Your task to perform on an android device: search for starred emails in the gmail app Image 0: 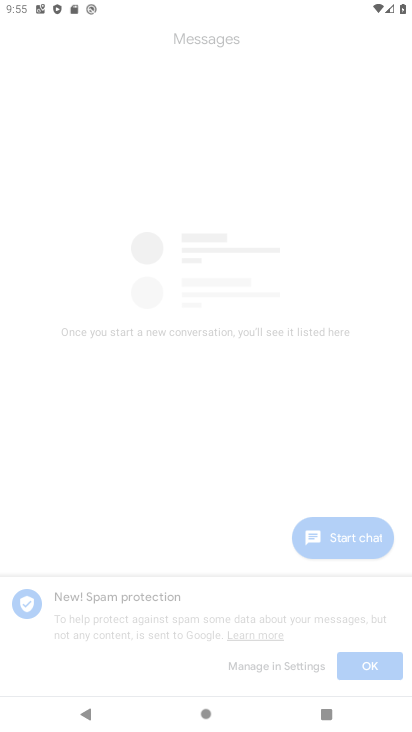
Step 0: drag from (0, 310) to (339, 258)
Your task to perform on an android device: search for starred emails in the gmail app Image 1: 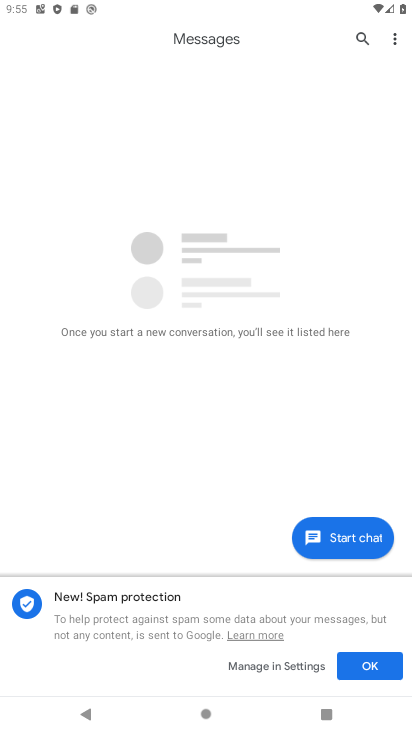
Step 1: press home button
Your task to perform on an android device: search for starred emails in the gmail app Image 2: 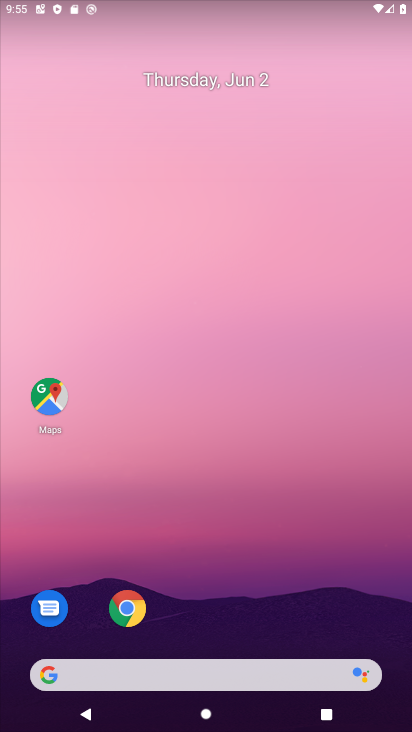
Step 2: drag from (244, 634) to (270, 155)
Your task to perform on an android device: search for starred emails in the gmail app Image 3: 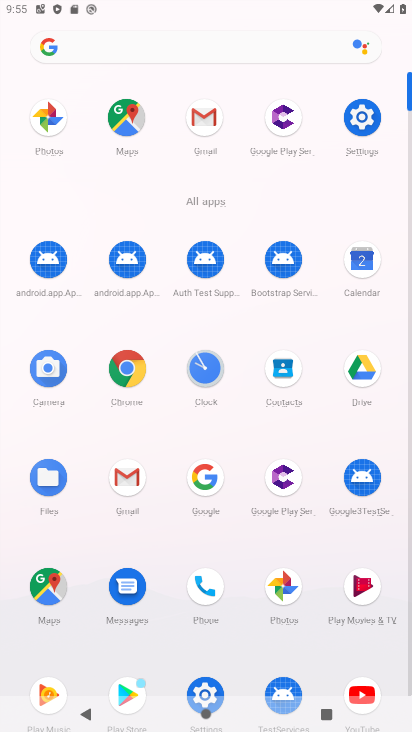
Step 3: click (139, 479)
Your task to perform on an android device: search for starred emails in the gmail app Image 4: 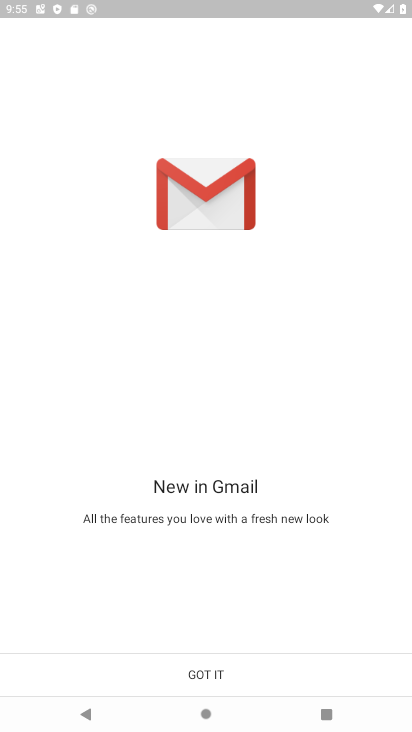
Step 4: click (215, 689)
Your task to perform on an android device: search for starred emails in the gmail app Image 5: 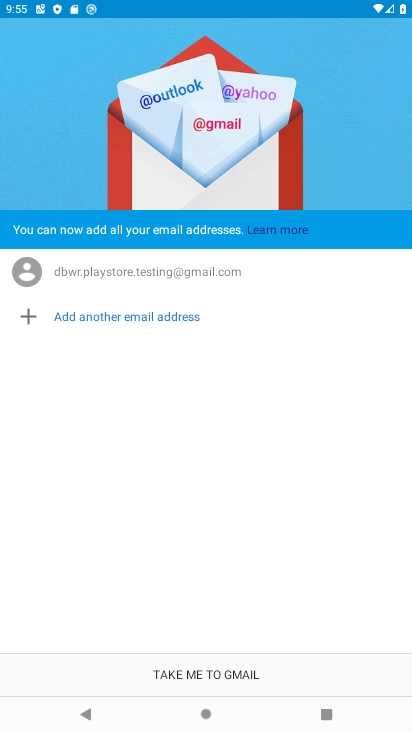
Step 5: click (214, 687)
Your task to perform on an android device: search for starred emails in the gmail app Image 6: 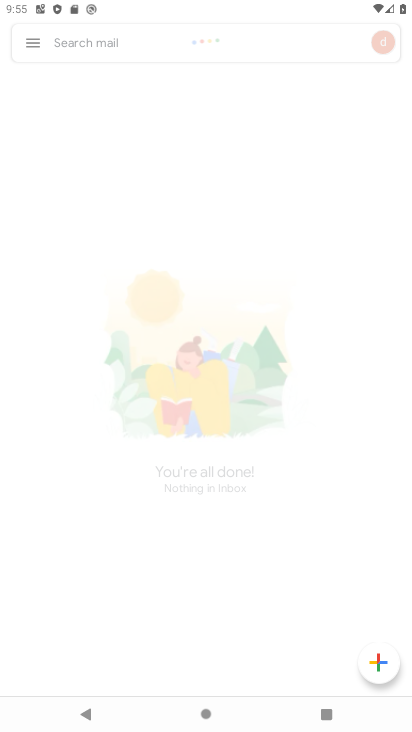
Step 6: click (22, 40)
Your task to perform on an android device: search for starred emails in the gmail app Image 7: 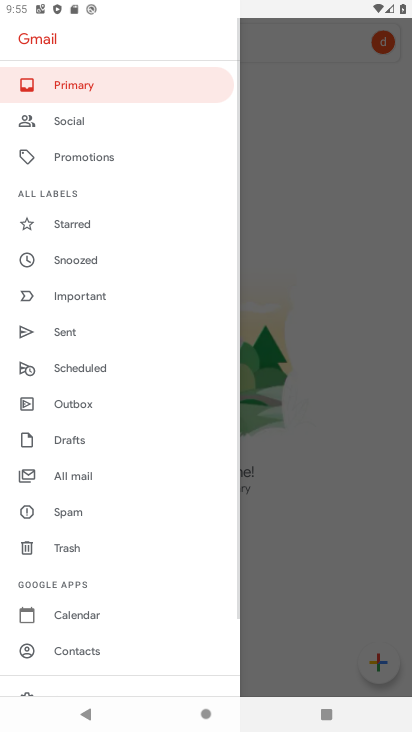
Step 7: click (115, 234)
Your task to perform on an android device: search for starred emails in the gmail app Image 8: 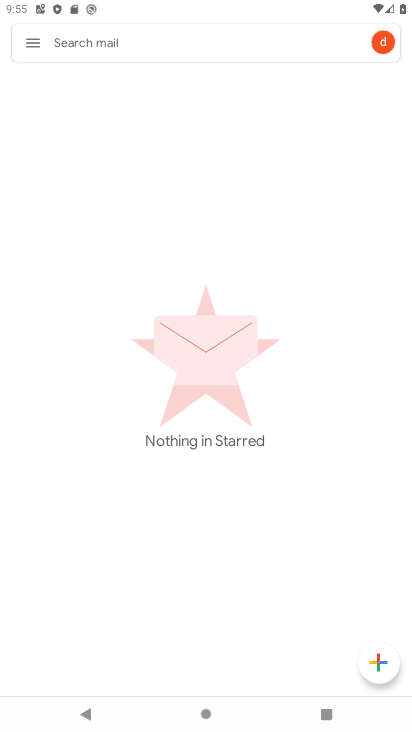
Step 8: task complete